Your task to perform on an android device: Open network settings Image 0: 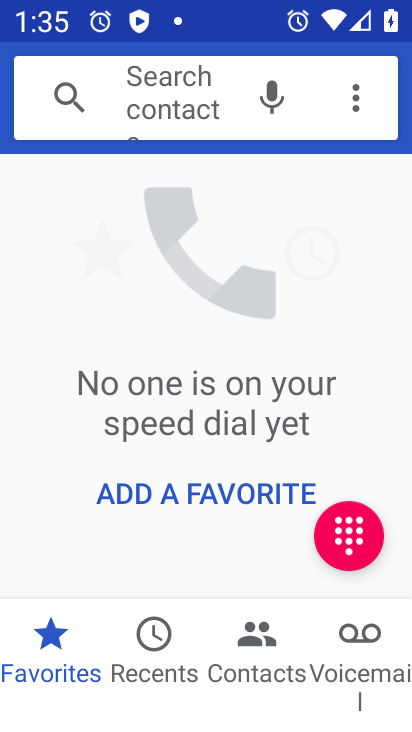
Step 0: press home button
Your task to perform on an android device: Open network settings Image 1: 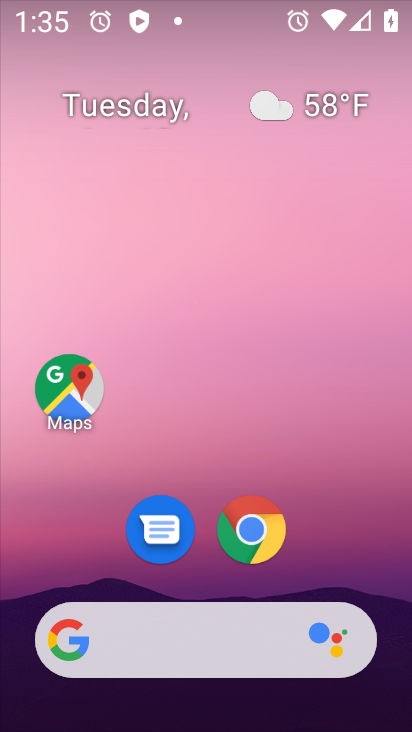
Step 1: drag from (245, 620) to (262, 84)
Your task to perform on an android device: Open network settings Image 2: 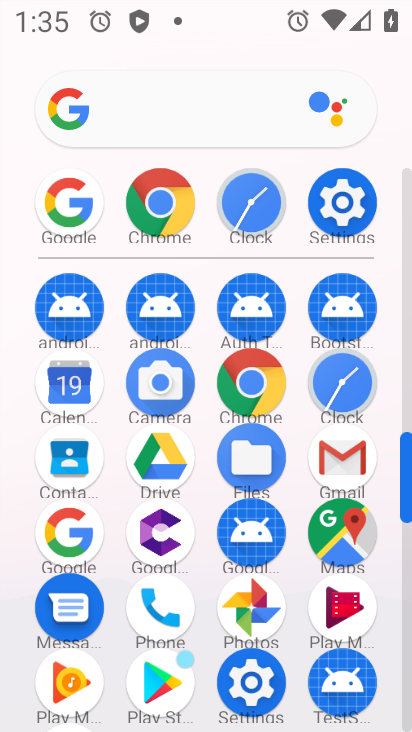
Step 2: click (342, 214)
Your task to perform on an android device: Open network settings Image 3: 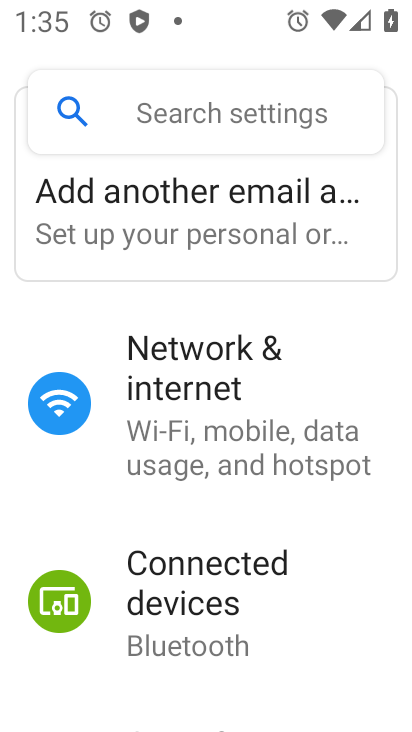
Step 3: click (219, 430)
Your task to perform on an android device: Open network settings Image 4: 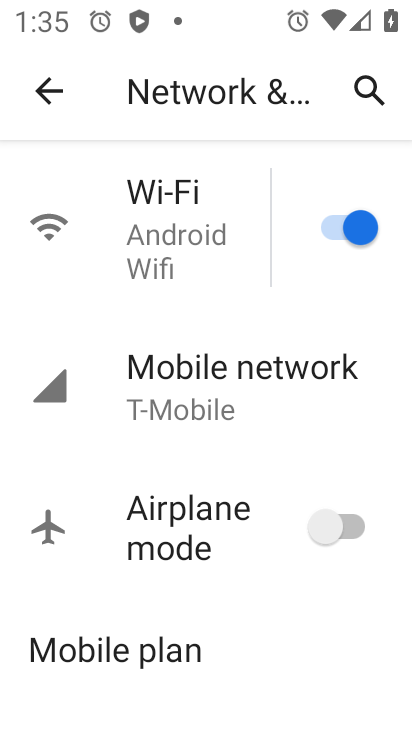
Step 4: click (233, 372)
Your task to perform on an android device: Open network settings Image 5: 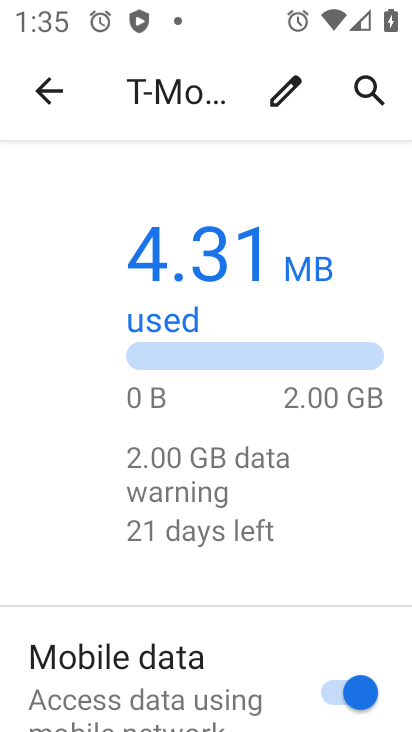
Step 5: task complete